Your task to perform on an android device: Open Wikipedia Image 0: 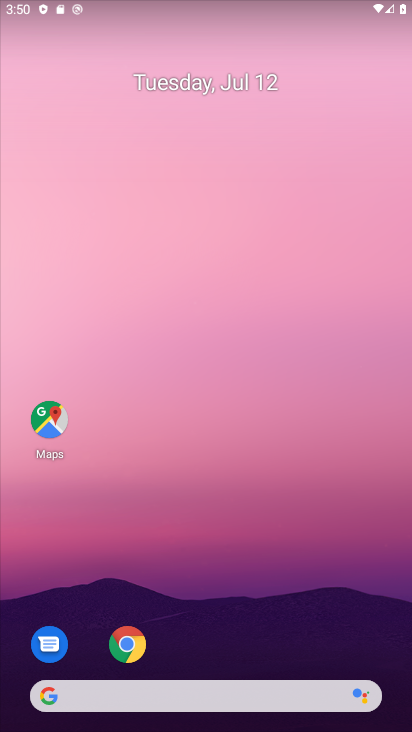
Step 0: drag from (181, 698) to (186, 180)
Your task to perform on an android device: Open Wikipedia Image 1: 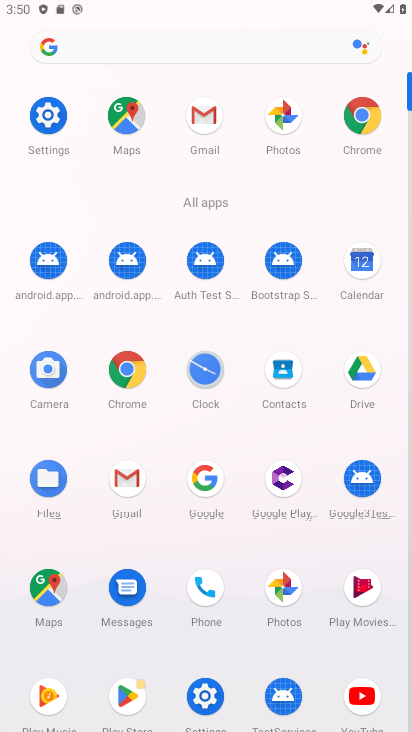
Step 1: click (359, 128)
Your task to perform on an android device: Open Wikipedia Image 2: 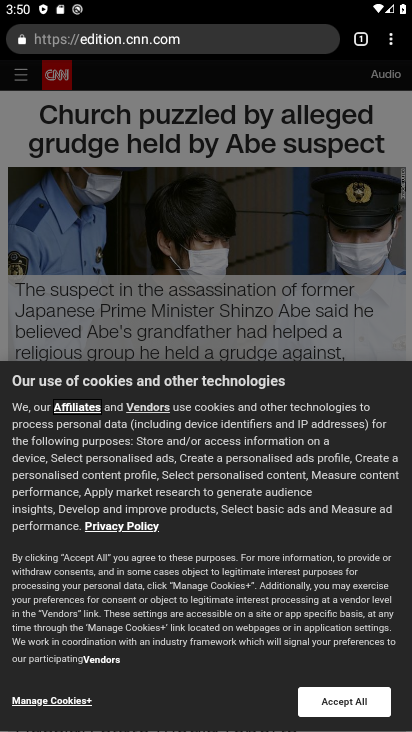
Step 2: click (166, 40)
Your task to perform on an android device: Open Wikipedia Image 3: 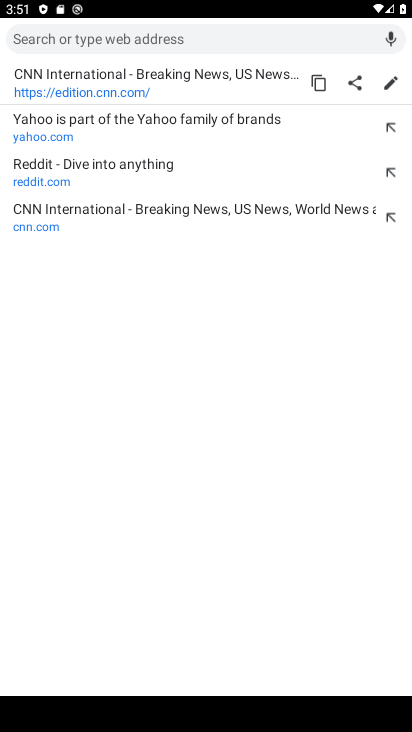
Step 3: type "wikipedia"
Your task to perform on an android device: Open Wikipedia Image 4: 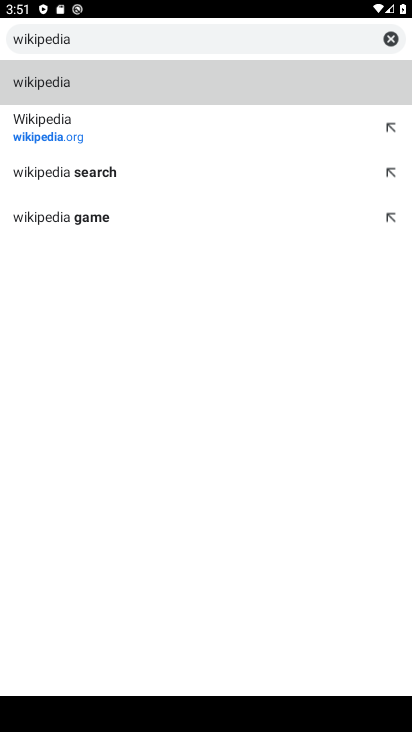
Step 4: click (91, 124)
Your task to perform on an android device: Open Wikipedia Image 5: 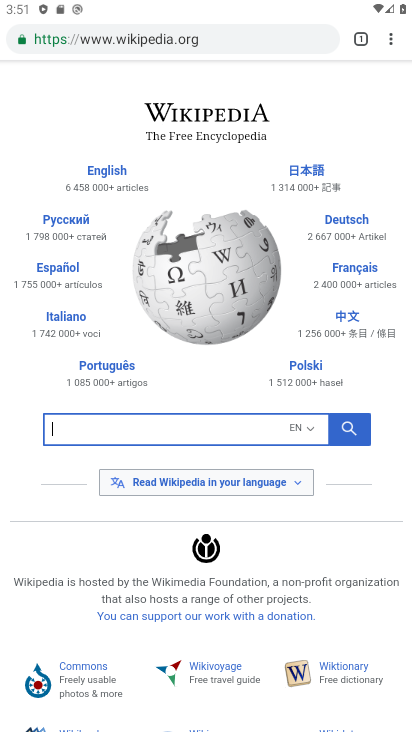
Step 5: task complete